Your task to perform on an android device: Go to privacy settings Image 0: 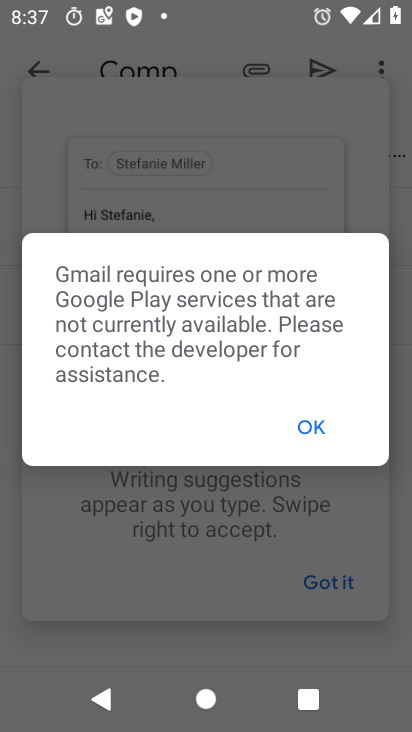
Step 0: press home button
Your task to perform on an android device: Go to privacy settings Image 1: 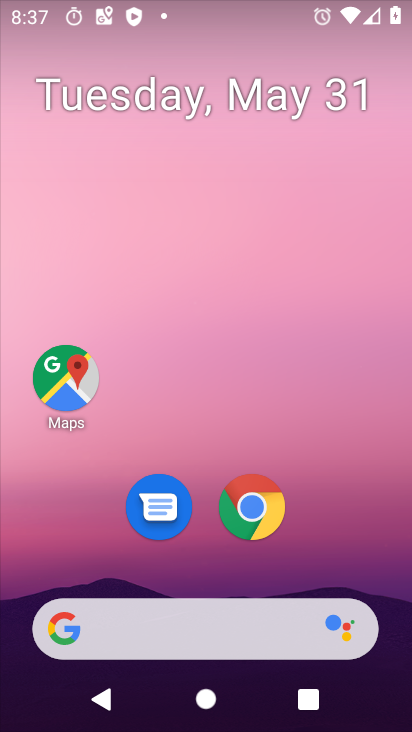
Step 1: drag from (359, 571) to (234, 7)
Your task to perform on an android device: Go to privacy settings Image 2: 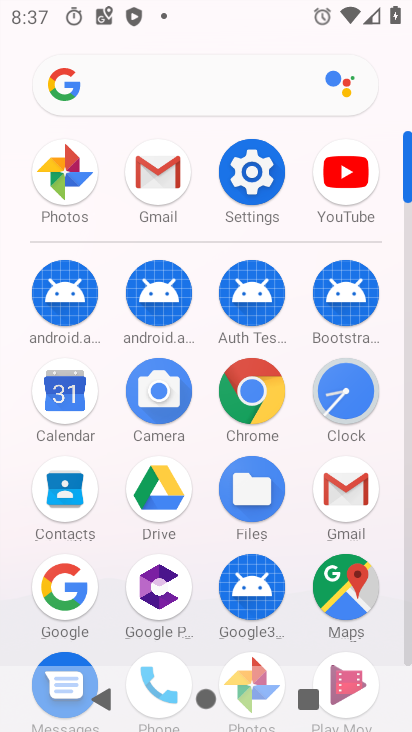
Step 2: click (243, 180)
Your task to perform on an android device: Go to privacy settings Image 3: 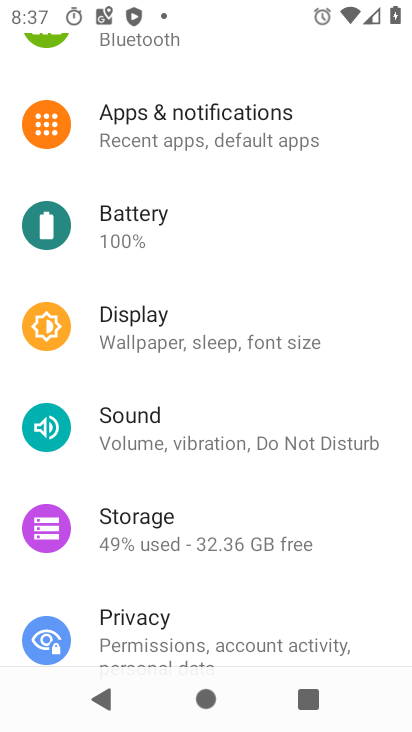
Step 3: click (126, 632)
Your task to perform on an android device: Go to privacy settings Image 4: 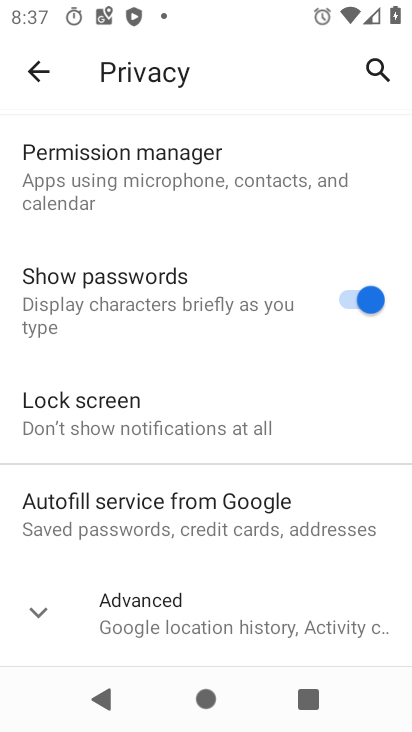
Step 4: task complete